Your task to perform on an android device: Clear the shopping cart on target.com. Image 0: 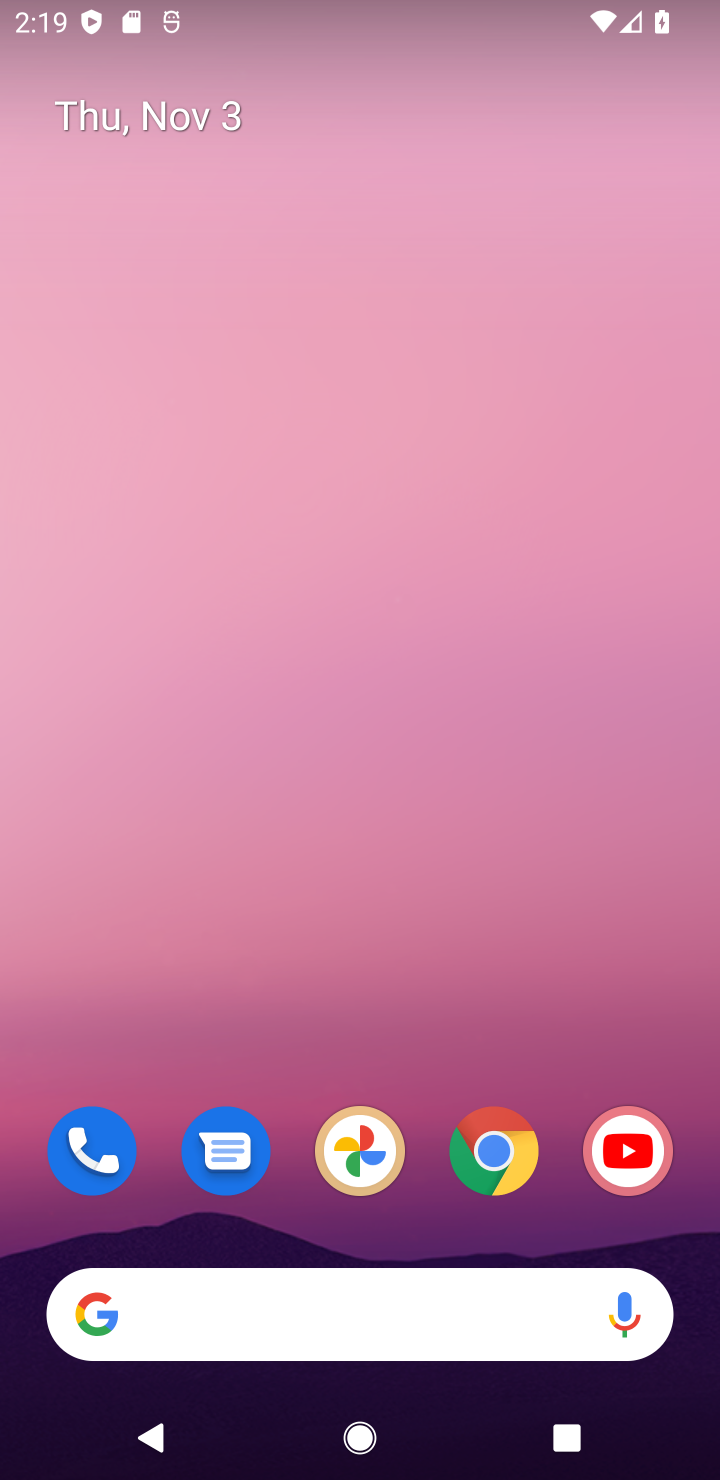
Step 0: click (490, 1148)
Your task to perform on an android device: Clear the shopping cart on target.com. Image 1: 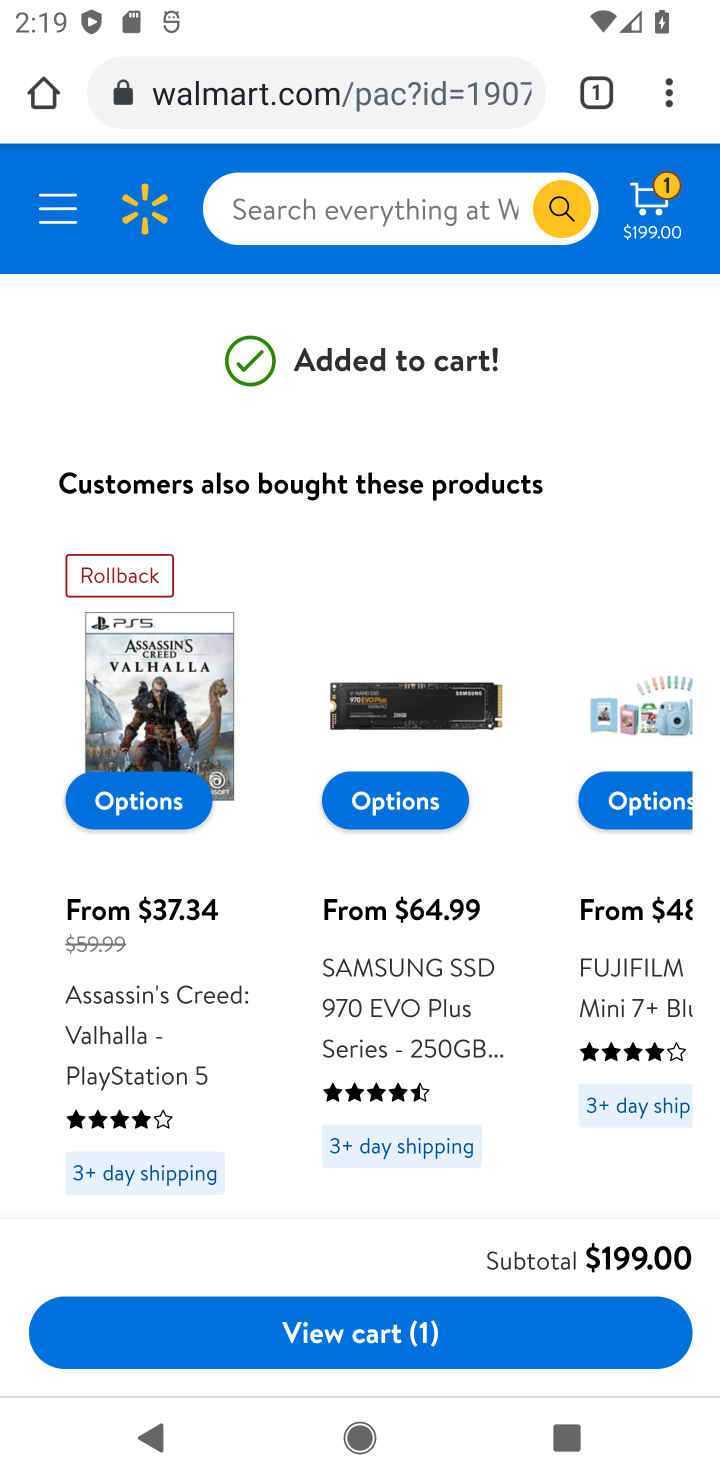
Step 1: click (392, 95)
Your task to perform on an android device: Clear the shopping cart on target.com. Image 2: 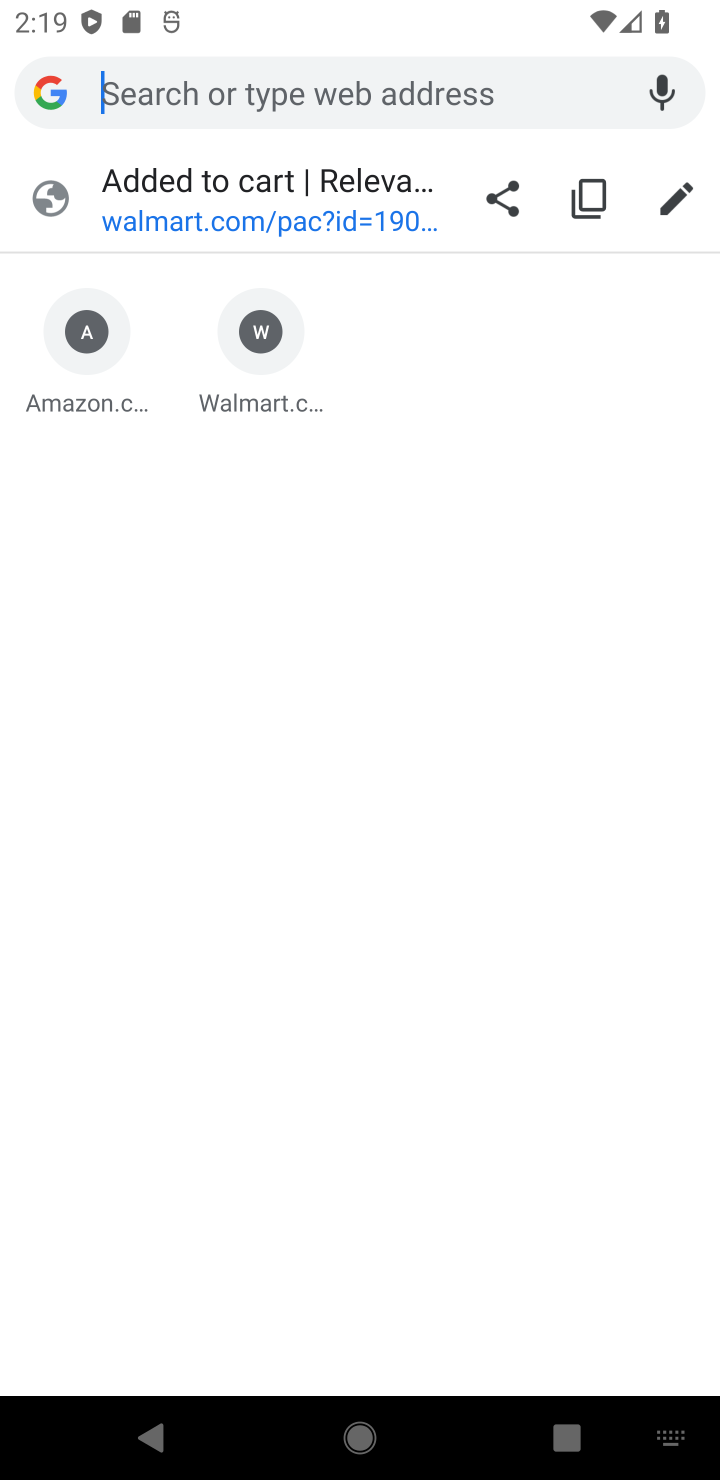
Step 2: type "target"
Your task to perform on an android device: Clear the shopping cart on target.com. Image 3: 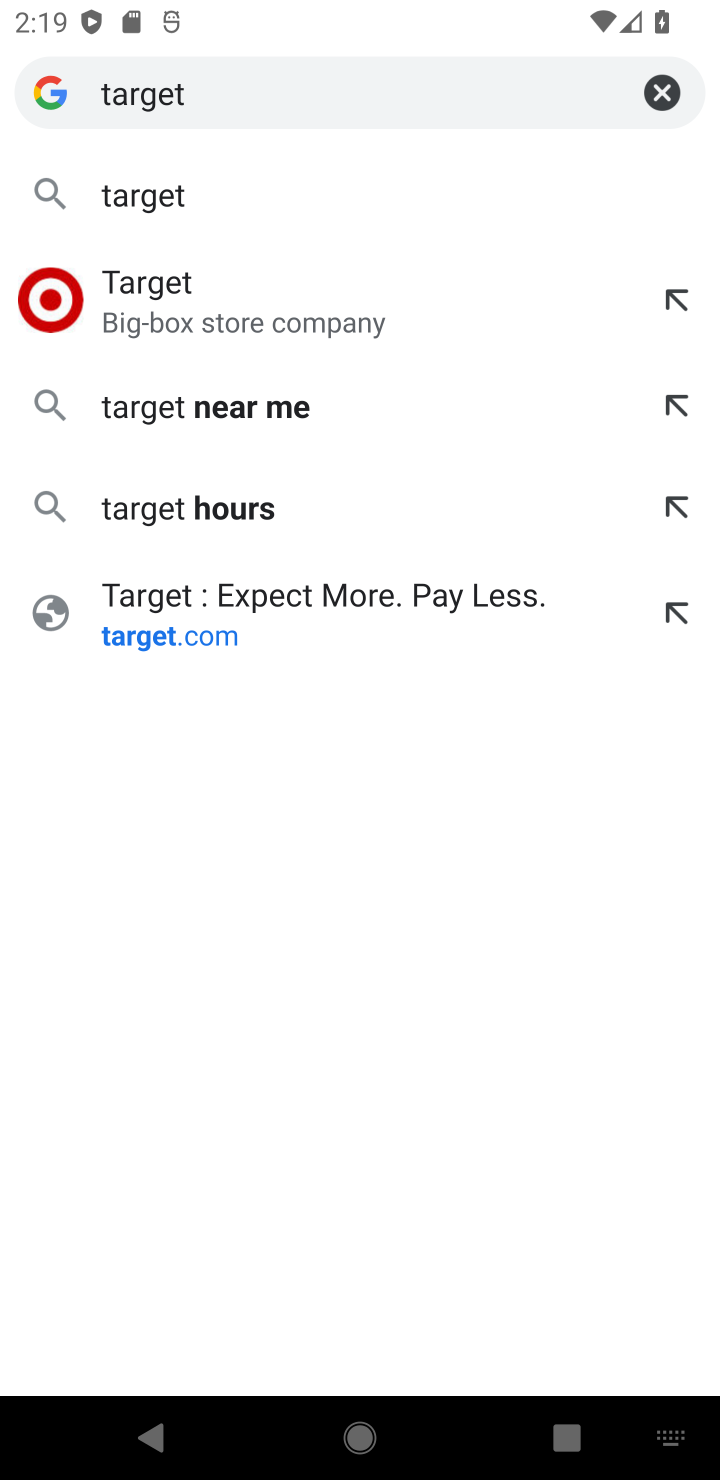
Step 3: click (162, 322)
Your task to perform on an android device: Clear the shopping cart on target.com. Image 4: 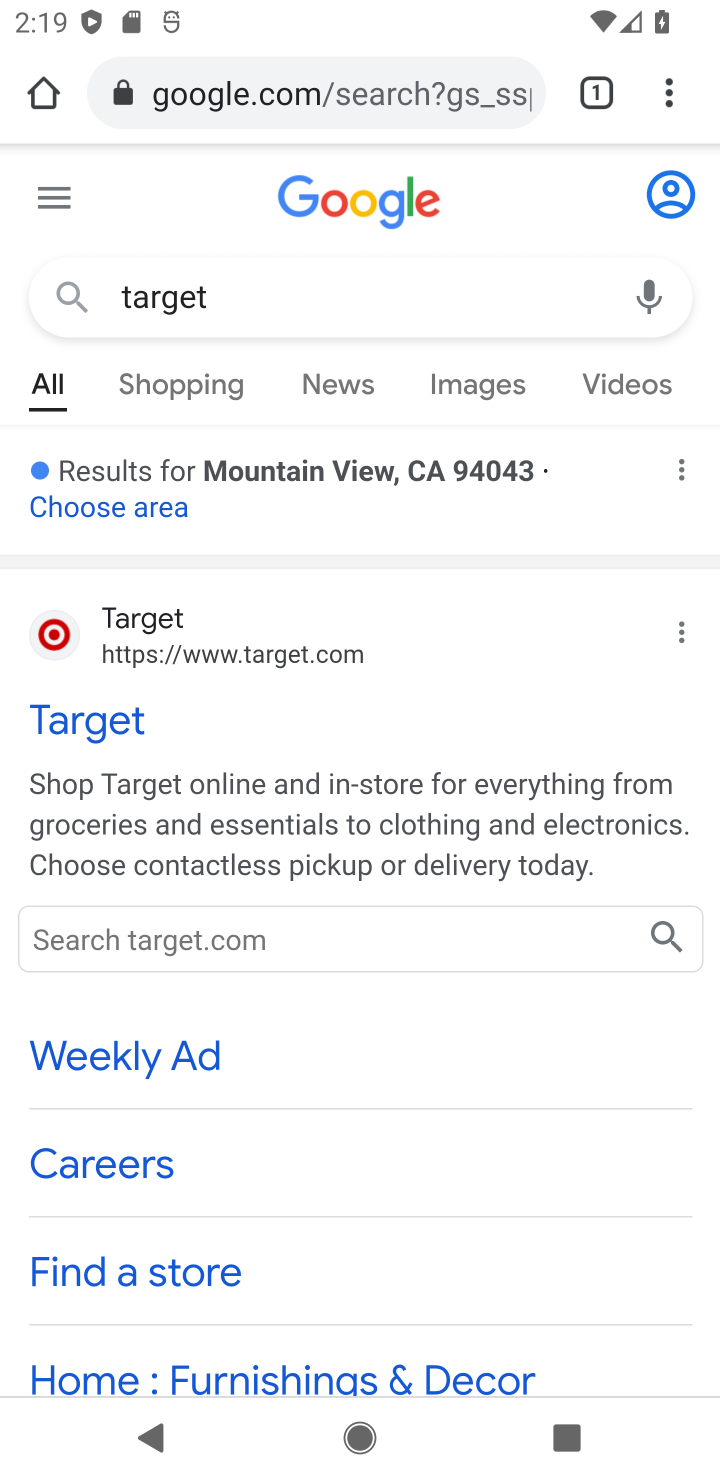
Step 4: click (97, 724)
Your task to perform on an android device: Clear the shopping cart on target.com. Image 5: 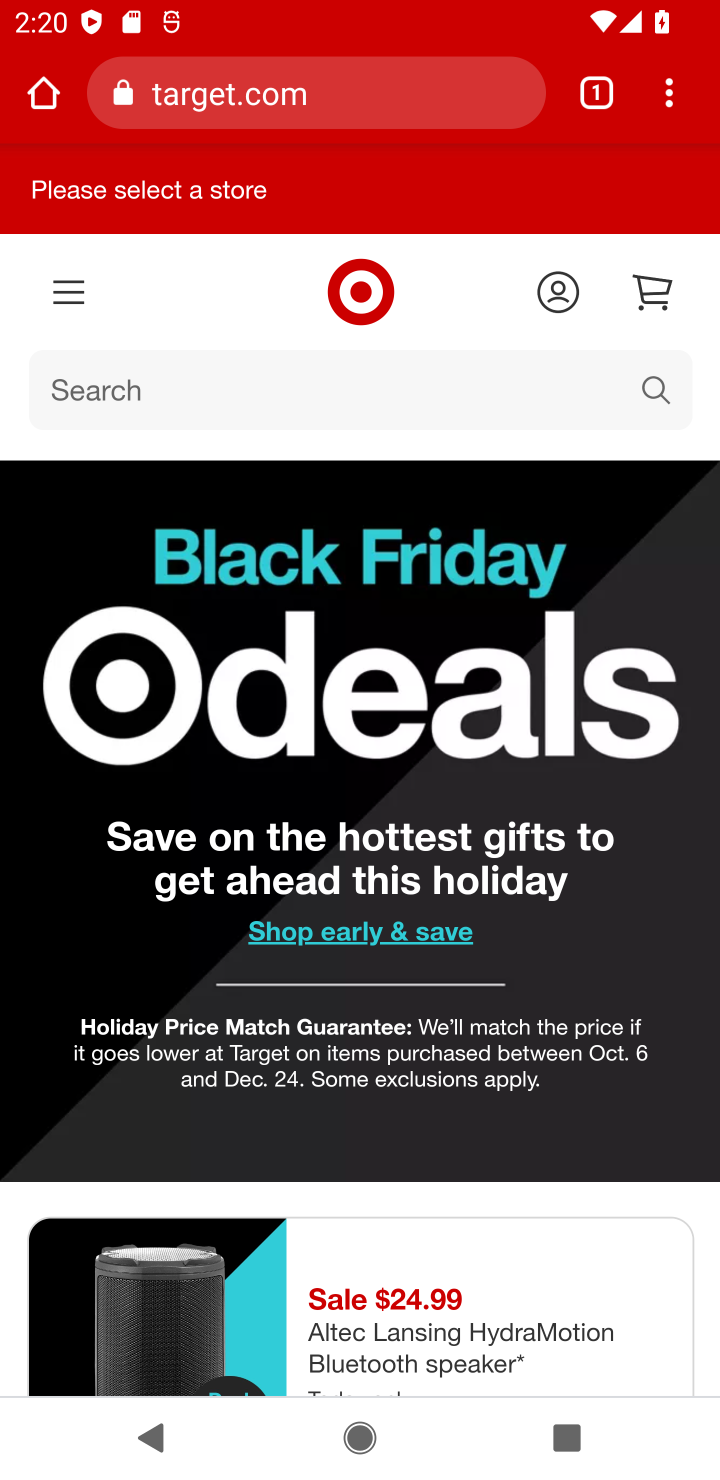
Step 5: click (653, 292)
Your task to perform on an android device: Clear the shopping cart on target.com. Image 6: 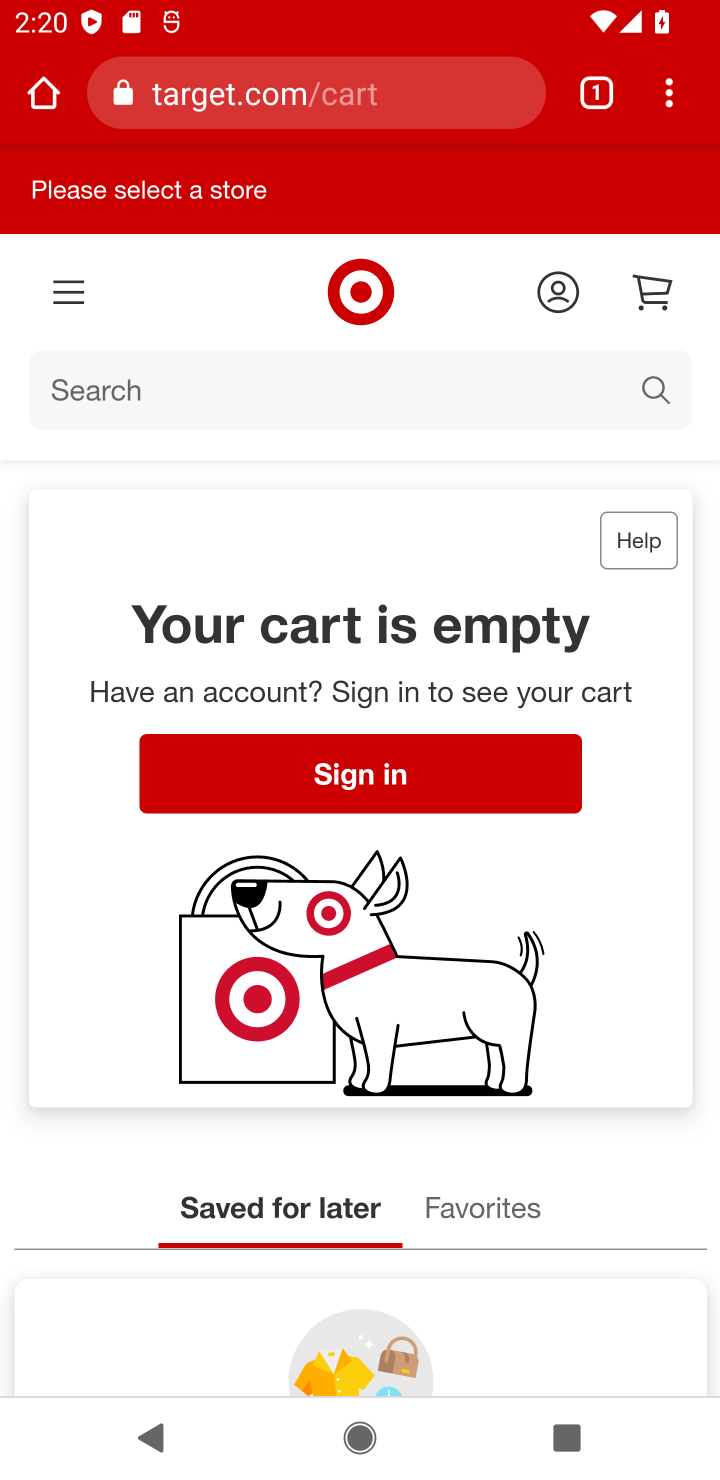
Step 6: task complete